Your task to perform on an android device: turn off improve location accuracy Image 0: 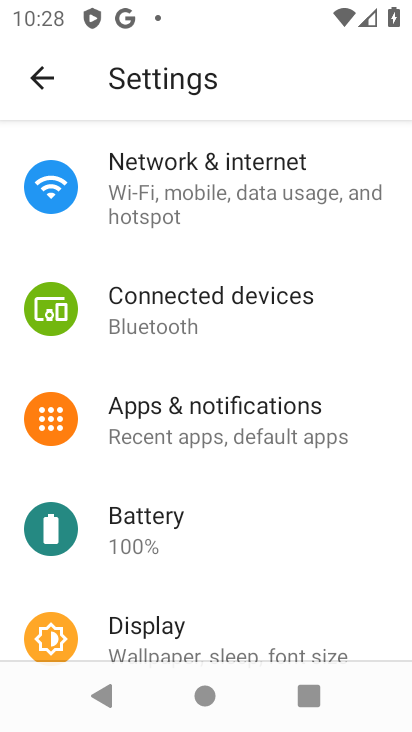
Step 0: drag from (319, 536) to (312, 127)
Your task to perform on an android device: turn off improve location accuracy Image 1: 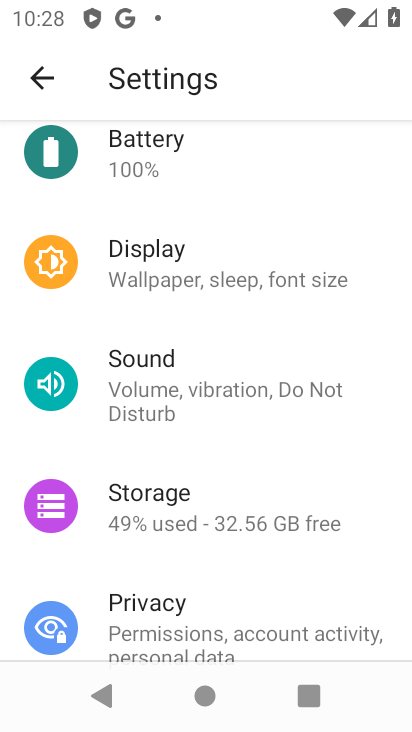
Step 1: drag from (279, 501) to (269, 109)
Your task to perform on an android device: turn off improve location accuracy Image 2: 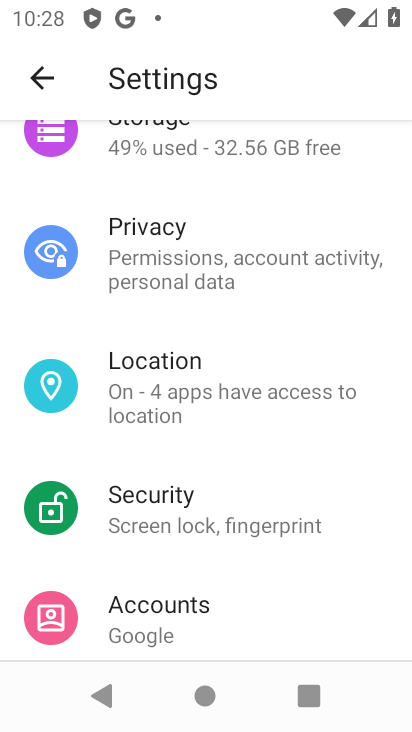
Step 2: click (166, 382)
Your task to perform on an android device: turn off improve location accuracy Image 3: 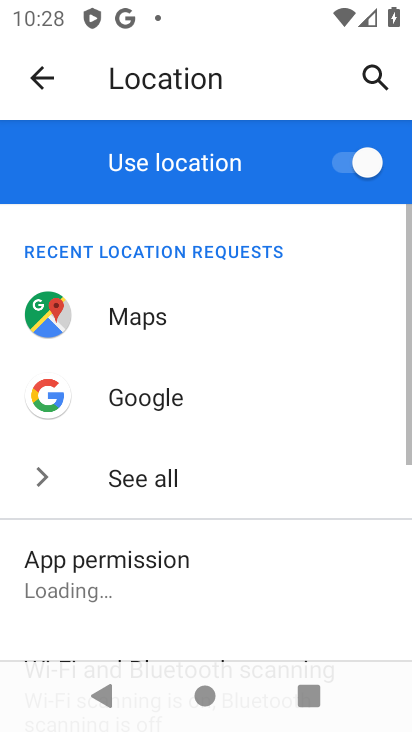
Step 3: drag from (248, 512) to (244, 13)
Your task to perform on an android device: turn off improve location accuracy Image 4: 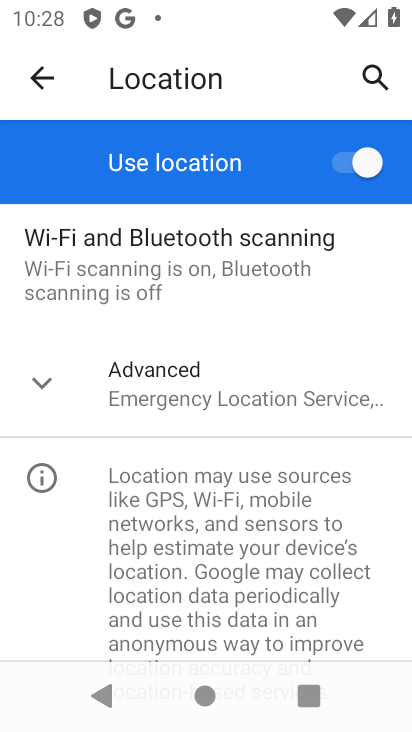
Step 4: click (39, 385)
Your task to perform on an android device: turn off improve location accuracy Image 5: 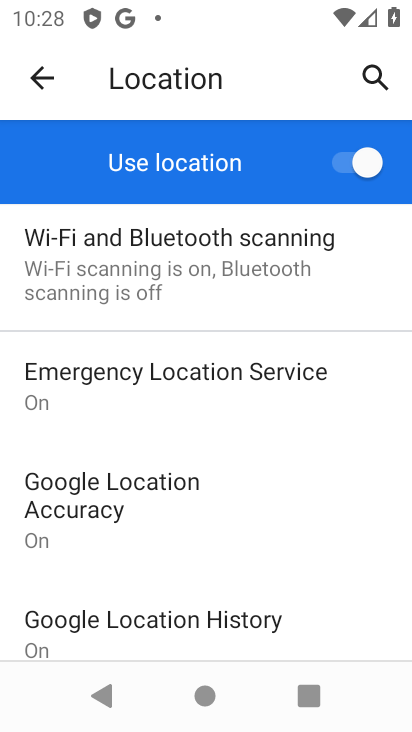
Step 5: click (93, 501)
Your task to perform on an android device: turn off improve location accuracy Image 6: 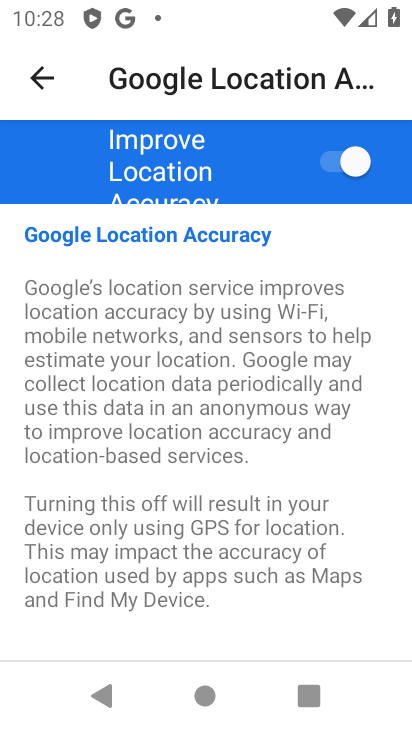
Step 6: click (346, 167)
Your task to perform on an android device: turn off improve location accuracy Image 7: 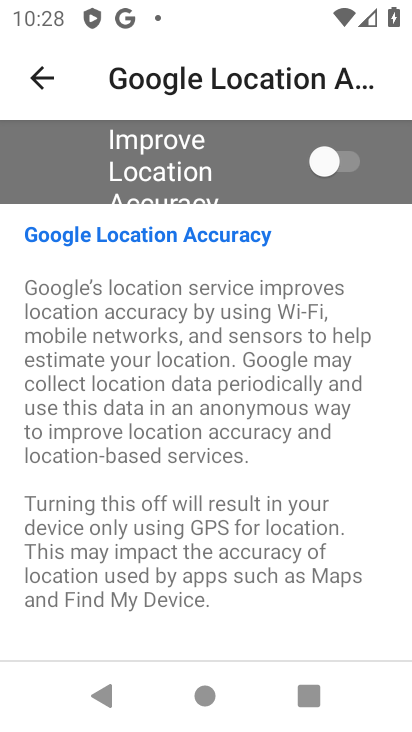
Step 7: task complete